Your task to perform on an android device: Open accessibility settings Image 0: 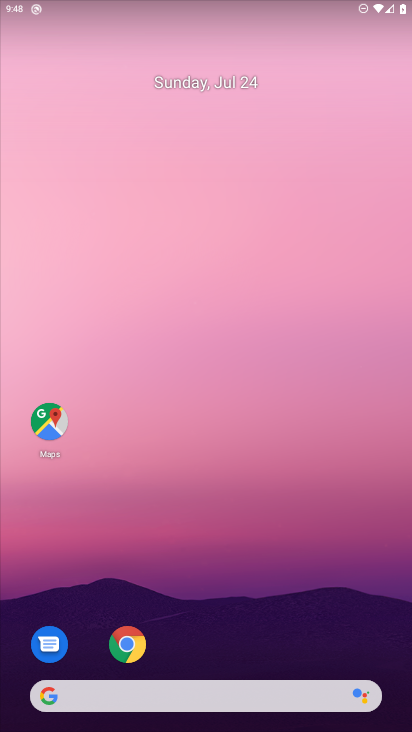
Step 0: press home button
Your task to perform on an android device: Open accessibility settings Image 1: 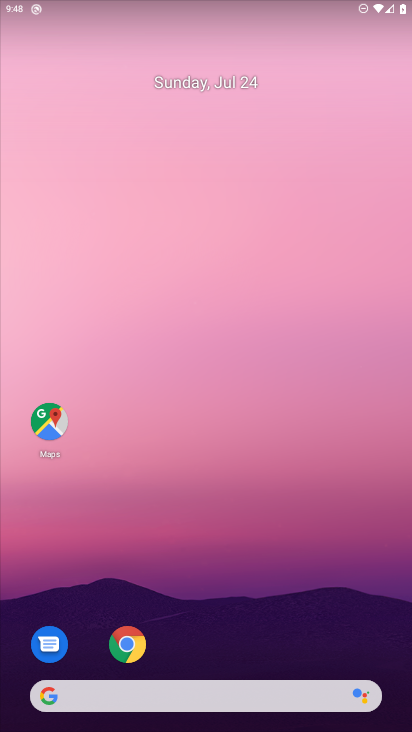
Step 1: drag from (229, 607) to (248, 24)
Your task to perform on an android device: Open accessibility settings Image 2: 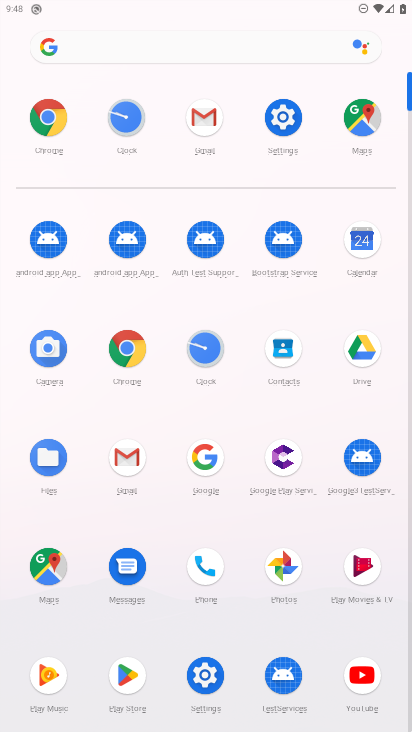
Step 2: click (196, 671)
Your task to perform on an android device: Open accessibility settings Image 3: 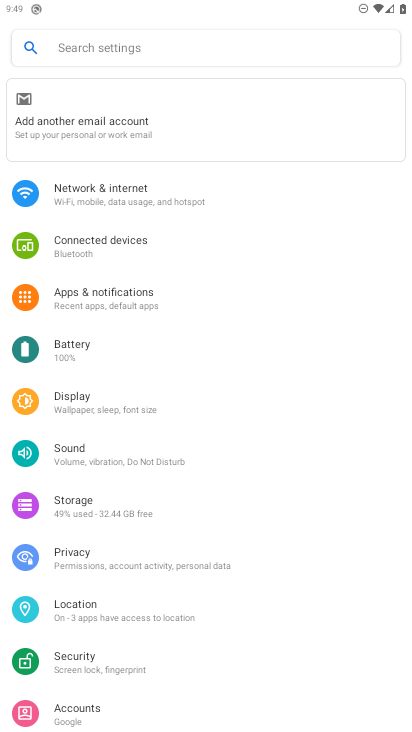
Step 3: drag from (189, 516) to (154, 29)
Your task to perform on an android device: Open accessibility settings Image 4: 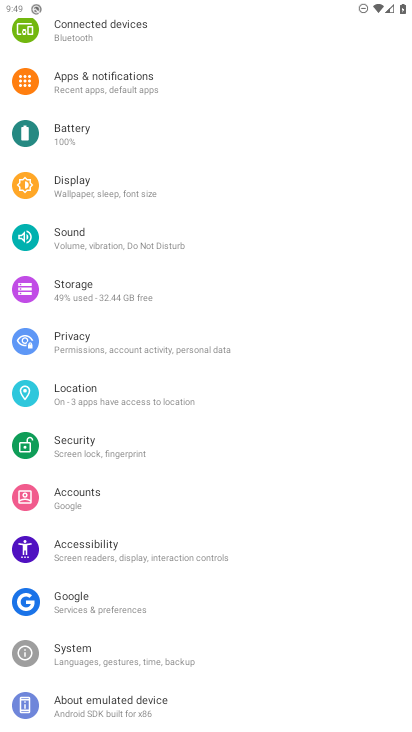
Step 4: click (109, 557)
Your task to perform on an android device: Open accessibility settings Image 5: 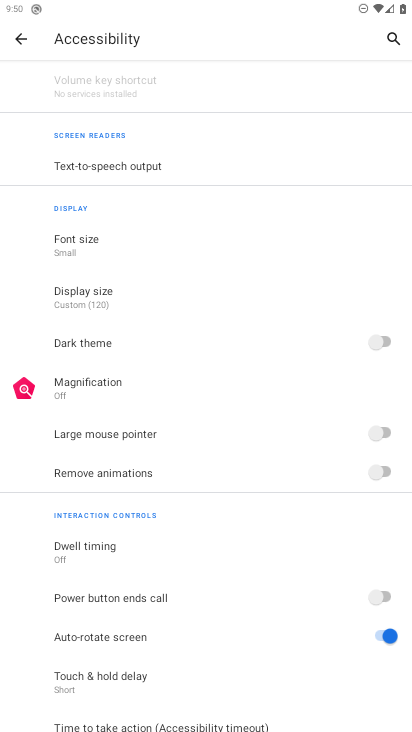
Step 5: task complete